Your task to perform on an android device: Open the calendar and show me this week's events Image 0: 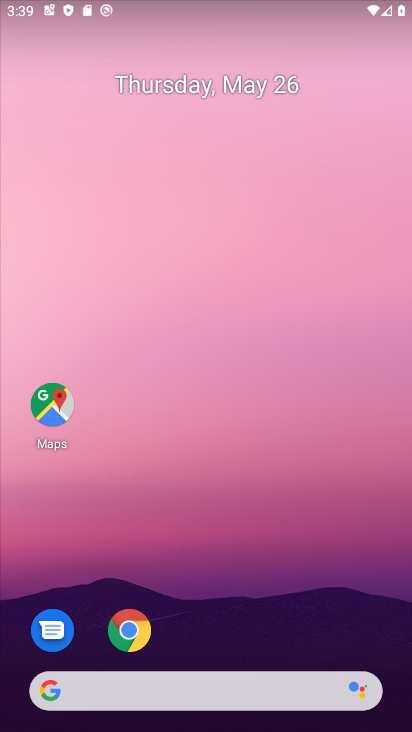
Step 0: drag from (269, 606) to (214, 0)
Your task to perform on an android device: Open the calendar and show me this week's events Image 1: 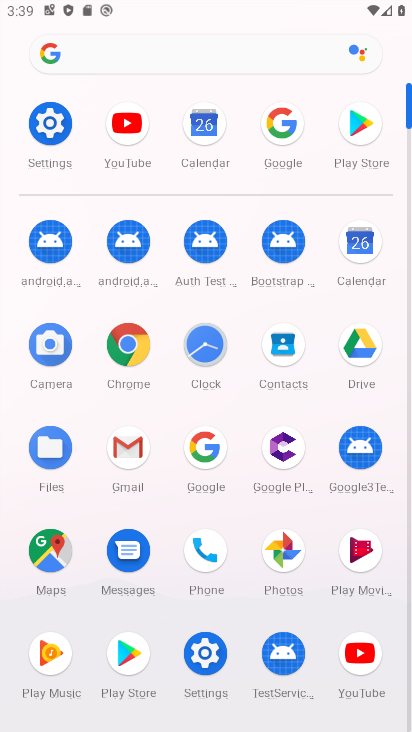
Step 1: click (206, 127)
Your task to perform on an android device: Open the calendar and show me this week's events Image 2: 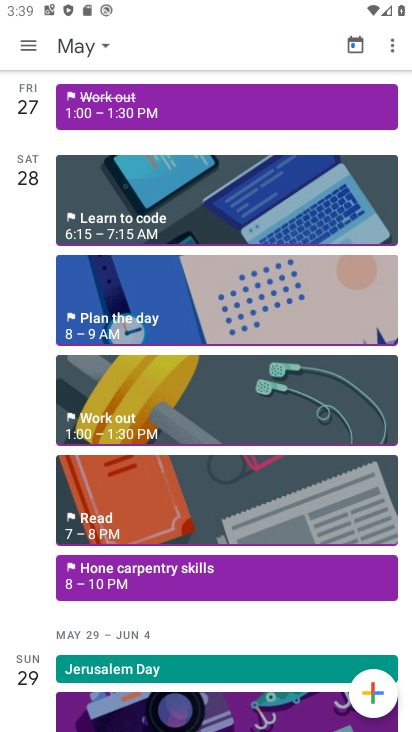
Step 2: task complete